Your task to perform on an android device: Open the web browser Image 0: 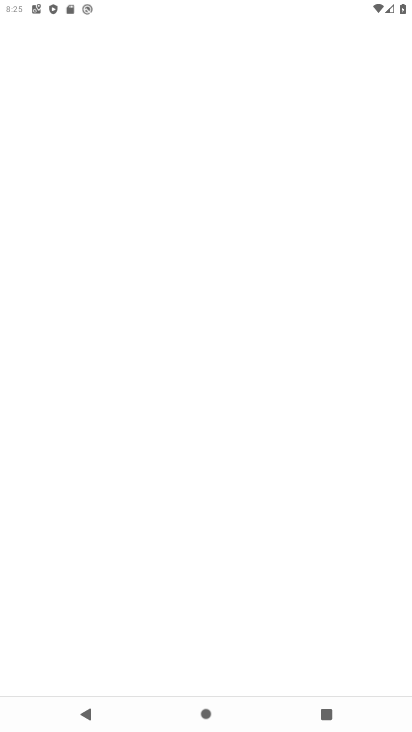
Step 0: click (55, 394)
Your task to perform on an android device: Open the web browser Image 1: 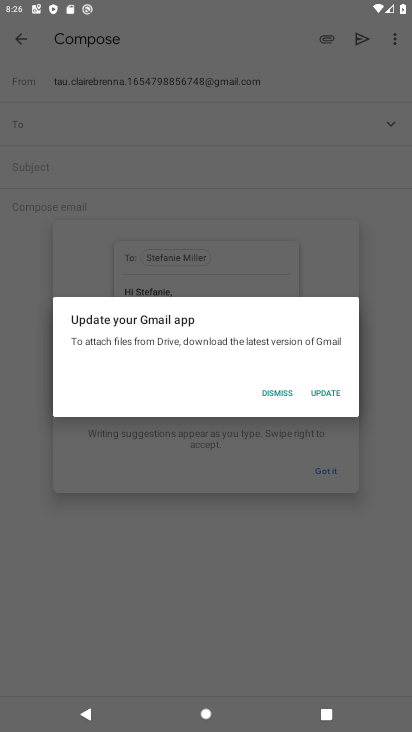
Step 1: press back button
Your task to perform on an android device: Open the web browser Image 2: 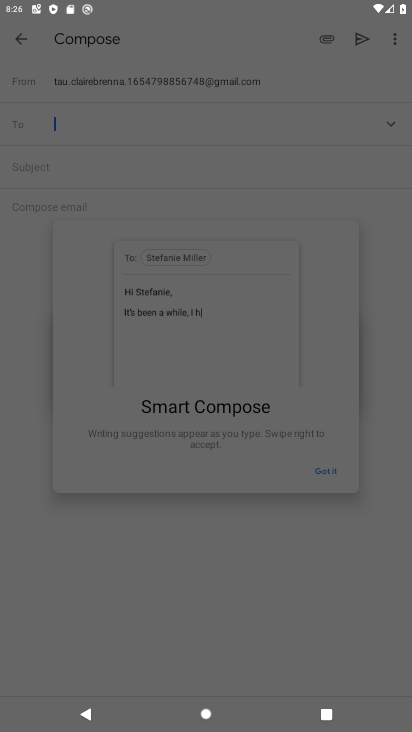
Step 2: press home button
Your task to perform on an android device: Open the web browser Image 3: 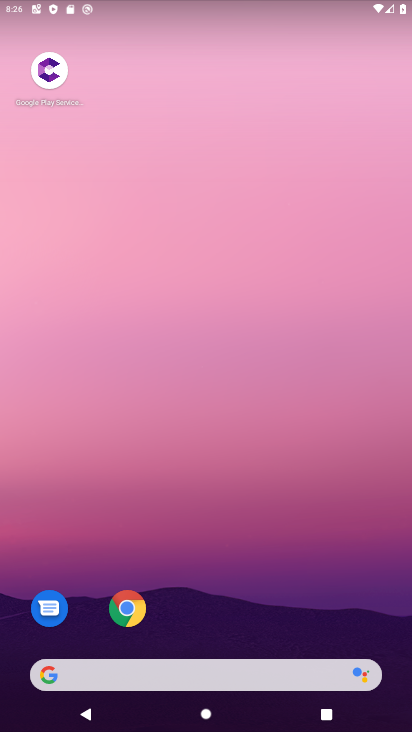
Step 3: click (130, 609)
Your task to perform on an android device: Open the web browser Image 4: 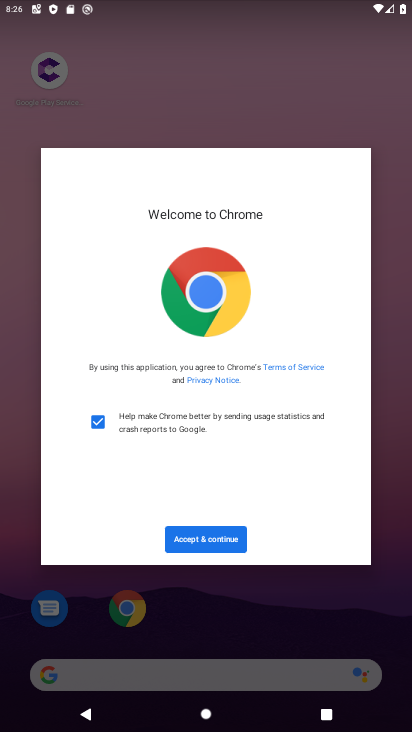
Step 4: click (183, 542)
Your task to perform on an android device: Open the web browser Image 5: 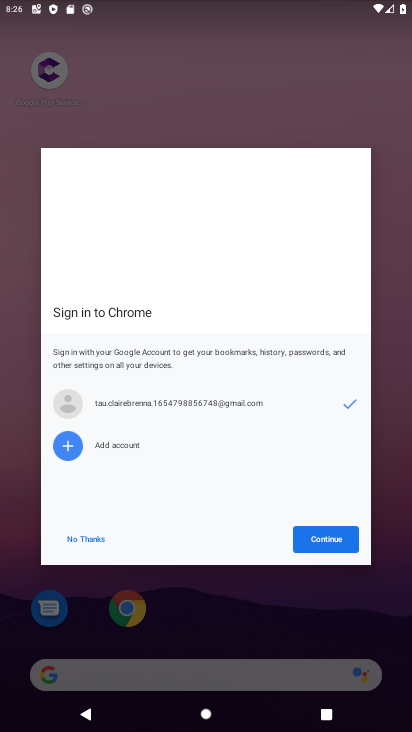
Step 5: click (315, 534)
Your task to perform on an android device: Open the web browser Image 6: 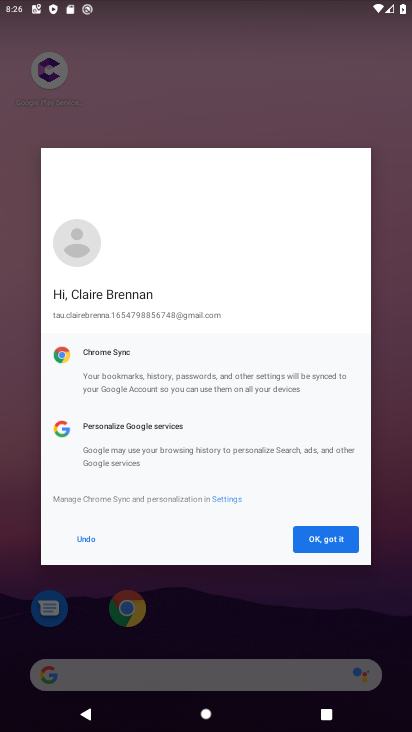
Step 6: click (316, 540)
Your task to perform on an android device: Open the web browser Image 7: 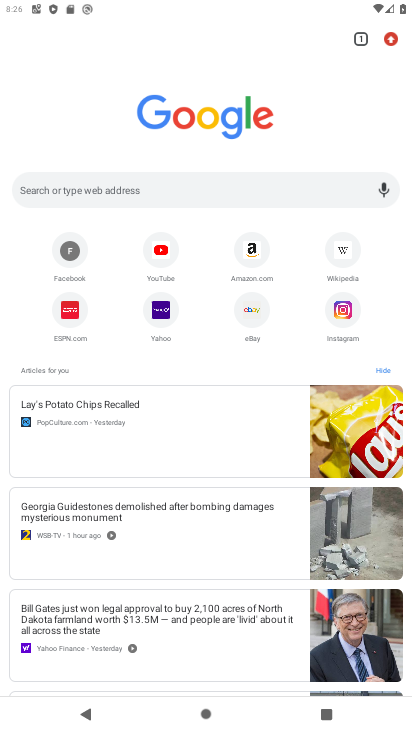
Step 7: task complete